Your task to perform on an android device: Open the phone app and click the voicemail tab. Image 0: 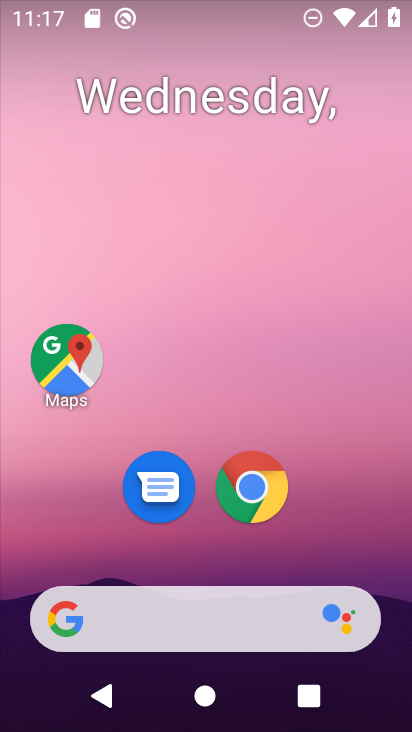
Step 0: drag from (316, 487) to (211, 49)
Your task to perform on an android device: Open the phone app and click the voicemail tab. Image 1: 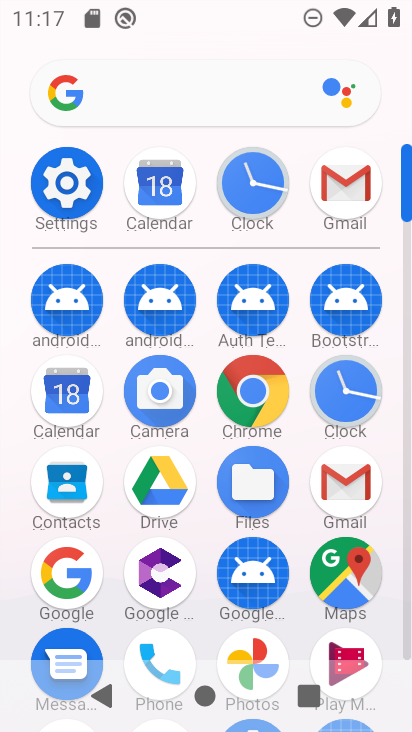
Step 1: drag from (204, 594) to (208, 304)
Your task to perform on an android device: Open the phone app and click the voicemail tab. Image 2: 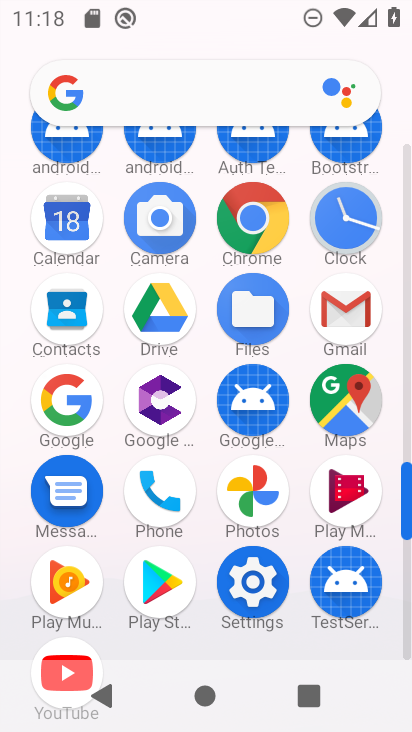
Step 2: click (156, 493)
Your task to perform on an android device: Open the phone app and click the voicemail tab. Image 3: 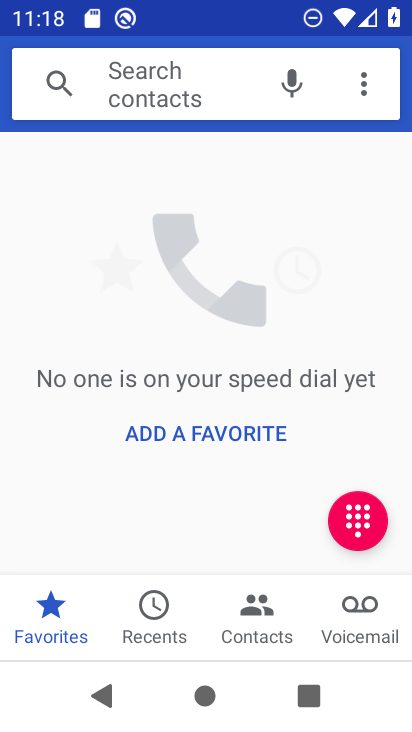
Step 3: click (358, 608)
Your task to perform on an android device: Open the phone app and click the voicemail tab. Image 4: 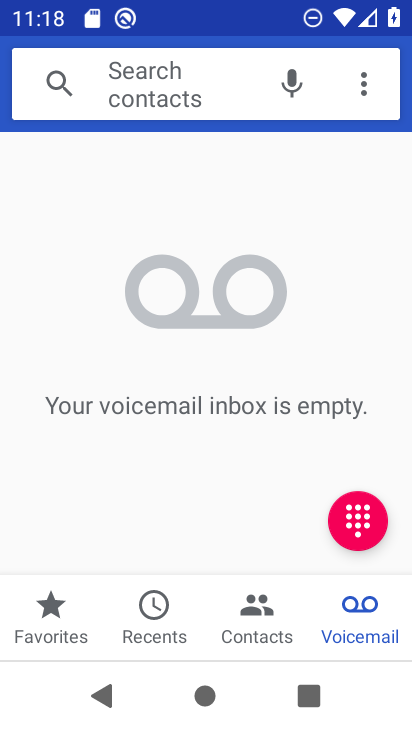
Step 4: task complete